Your task to perform on an android device: Go to battery settings Image 0: 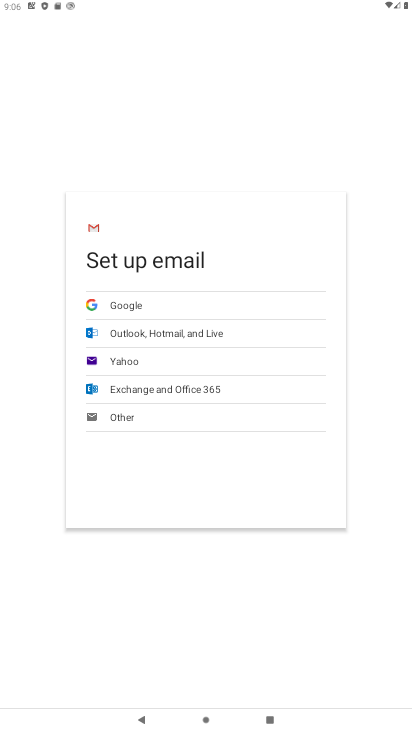
Step 0: press home button
Your task to perform on an android device: Go to battery settings Image 1: 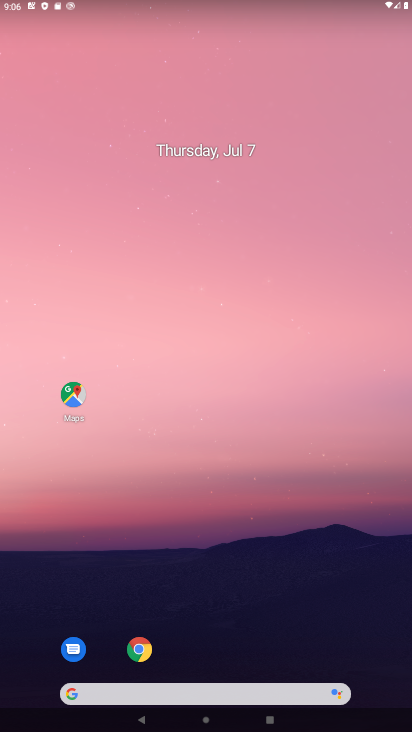
Step 1: drag from (226, 724) to (191, 136)
Your task to perform on an android device: Go to battery settings Image 2: 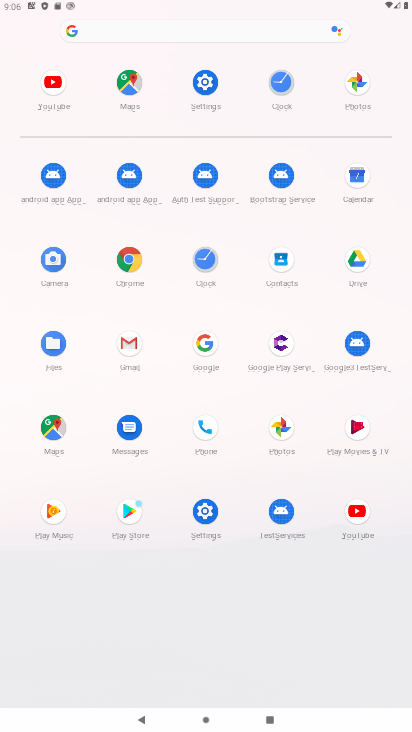
Step 2: click (214, 513)
Your task to perform on an android device: Go to battery settings Image 3: 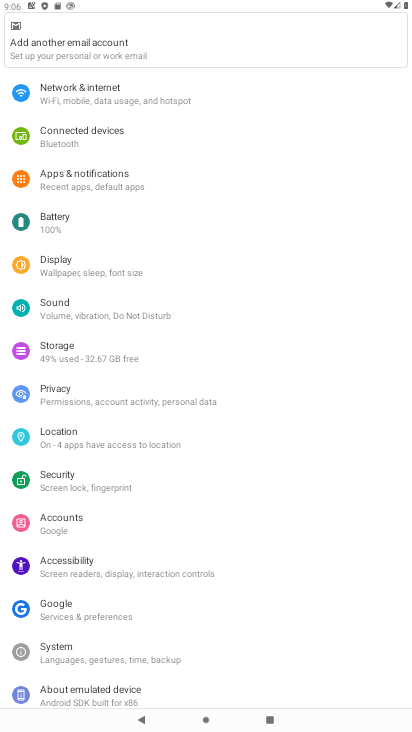
Step 3: click (54, 221)
Your task to perform on an android device: Go to battery settings Image 4: 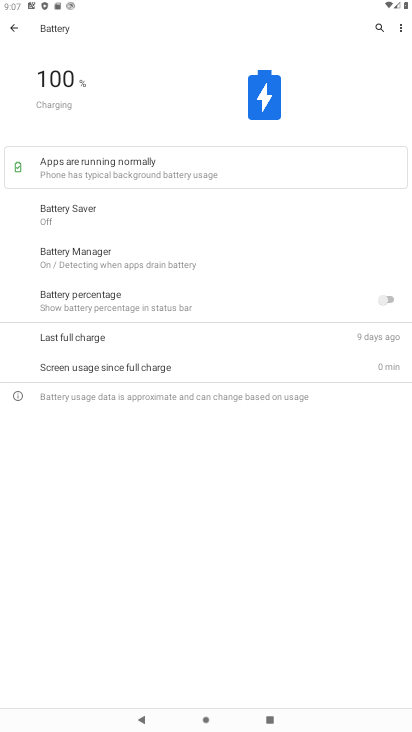
Step 4: task complete